Your task to perform on an android device: turn on translation in the chrome app Image 0: 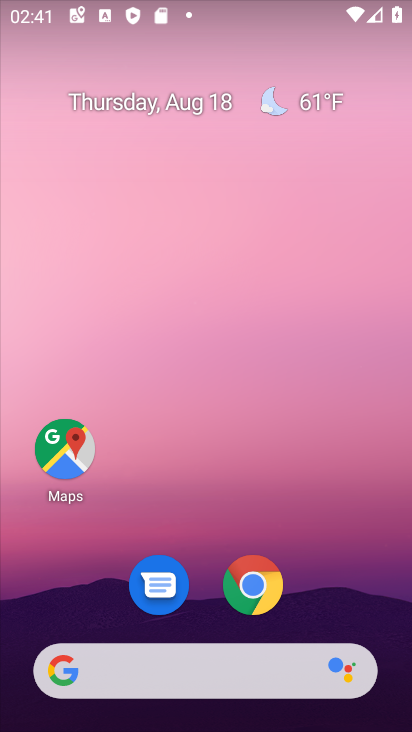
Step 0: click (260, 585)
Your task to perform on an android device: turn on translation in the chrome app Image 1: 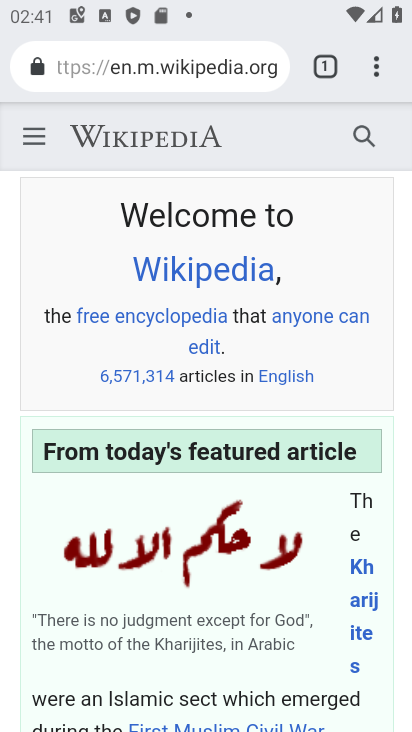
Step 1: click (373, 70)
Your task to perform on an android device: turn on translation in the chrome app Image 2: 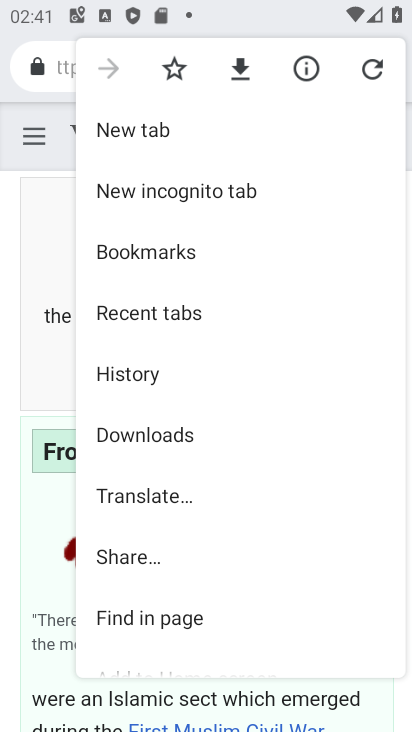
Step 2: drag from (221, 519) to (245, 108)
Your task to perform on an android device: turn on translation in the chrome app Image 3: 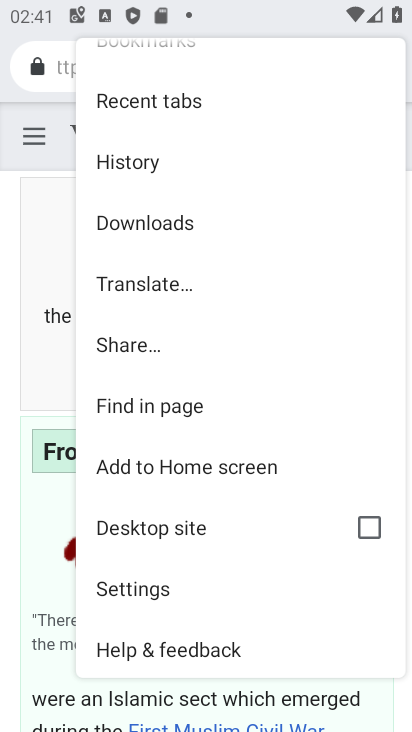
Step 3: click (184, 597)
Your task to perform on an android device: turn on translation in the chrome app Image 4: 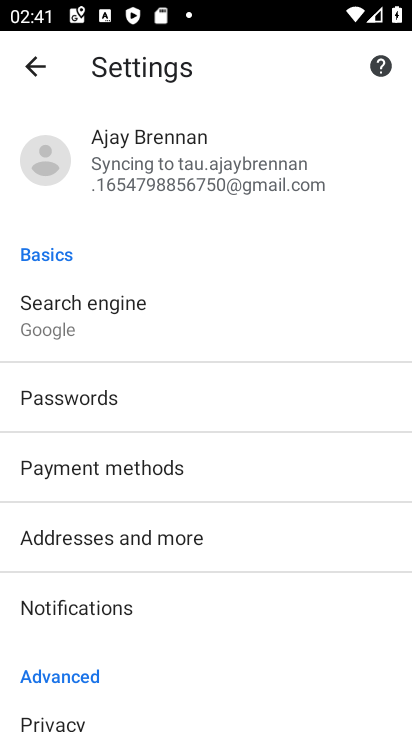
Step 4: drag from (220, 590) to (256, 1)
Your task to perform on an android device: turn on translation in the chrome app Image 5: 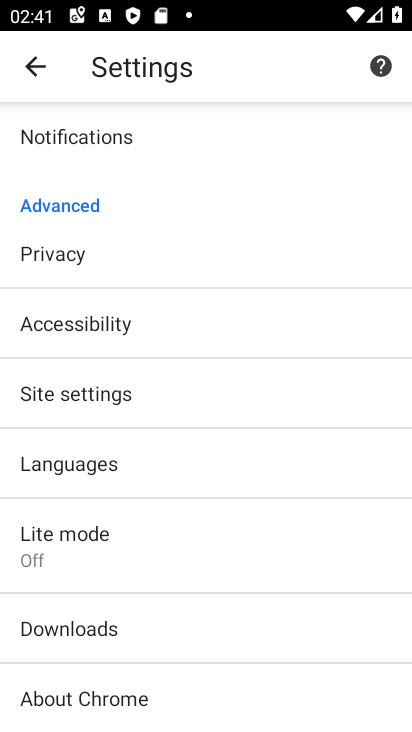
Step 5: drag from (171, 522) to (163, 303)
Your task to perform on an android device: turn on translation in the chrome app Image 6: 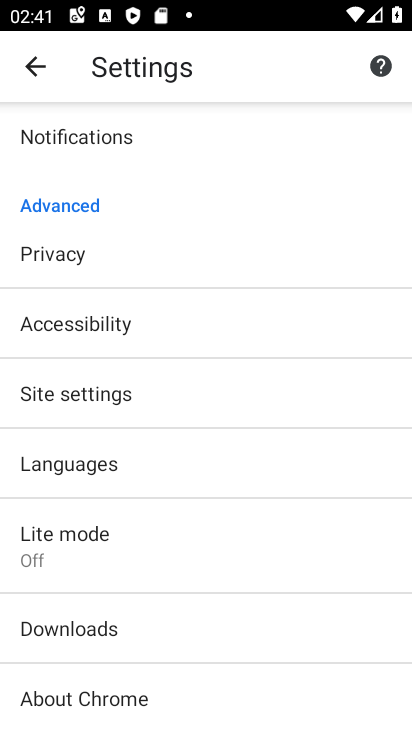
Step 6: click (217, 463)
Your task to perform on an android device: turn on translation in the chrome app Image 7: 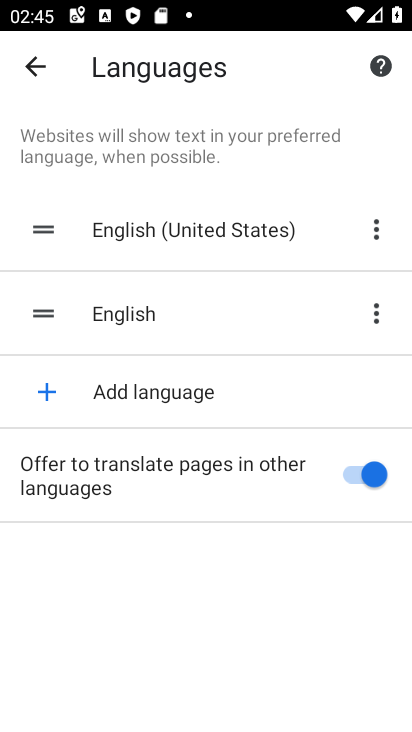
Step 7: task complete